Your task to perform on an android device: delete location history Image 0: 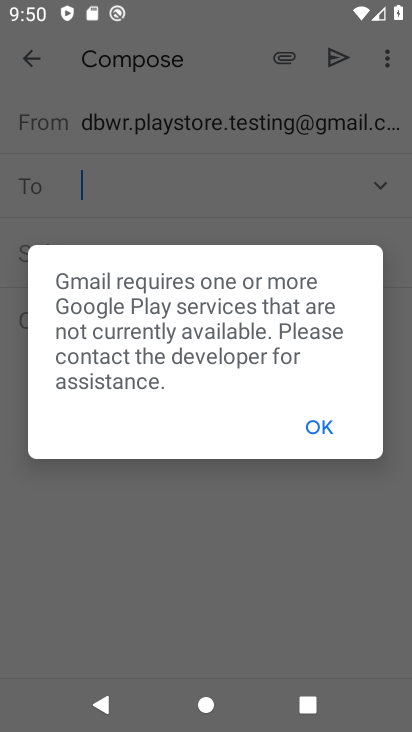
Step 0: click (313, 422)
Your task to perform on an android device: delete location history Image 1: 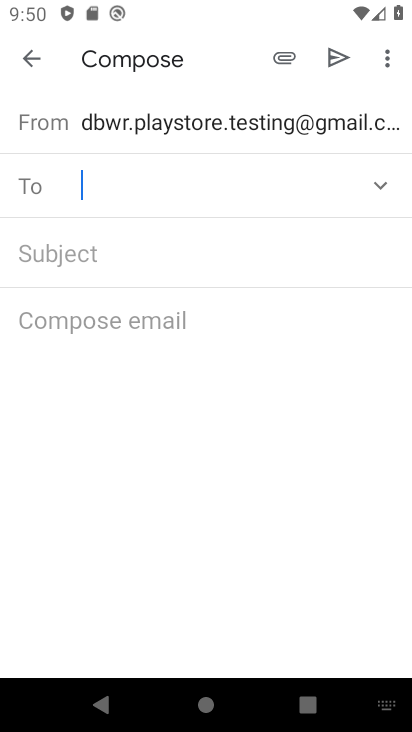
Step 1: press home button
Your task to perform on an android device: delete location history Image 2: 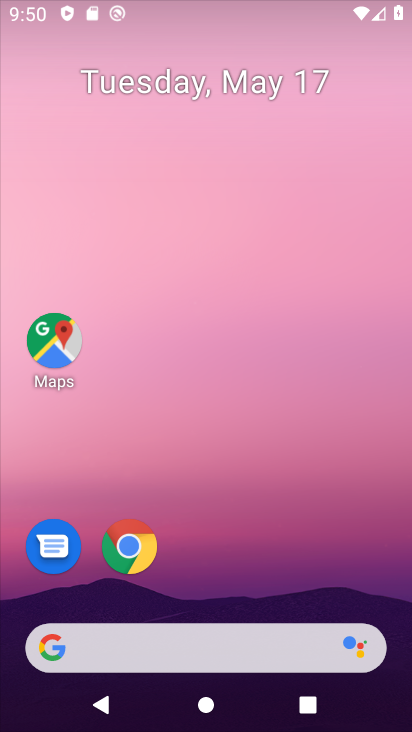
Step 2: drag from (266, 607) to (290, 261)
Your task to perform on an android device: delete location history Image 3: 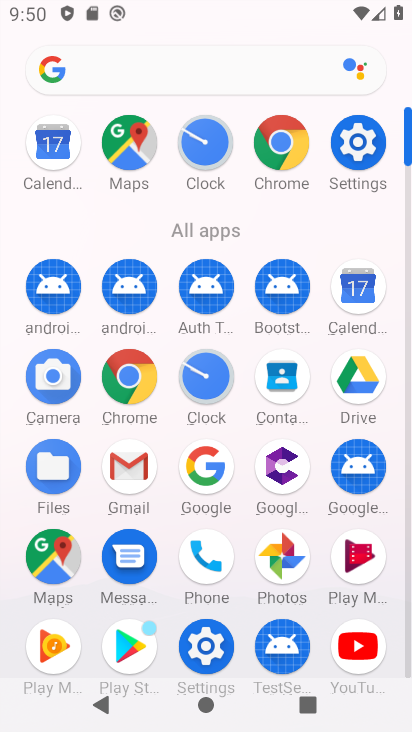
Step 3: click (349, 128)
Your task to perform on an android device: delete location history Image 4: 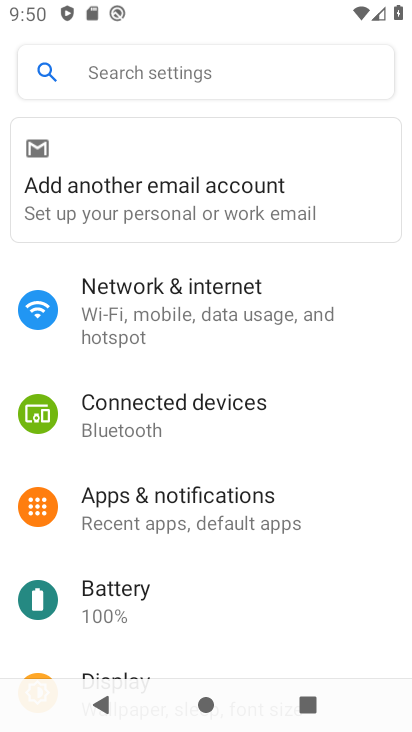
Step 4: drag from (165, 580) to (201, 249)
Your task to perform on an android device: delete location history Image 5: 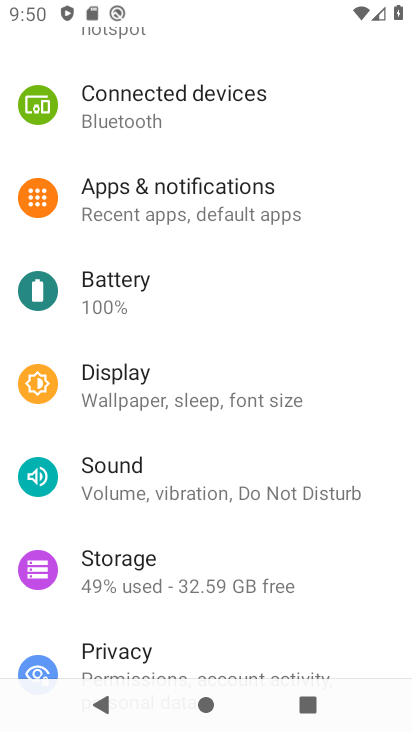
Step 5: drag from (182, 580) to (243, 182)
Your task to perform on an android device: delete location history Image 6: 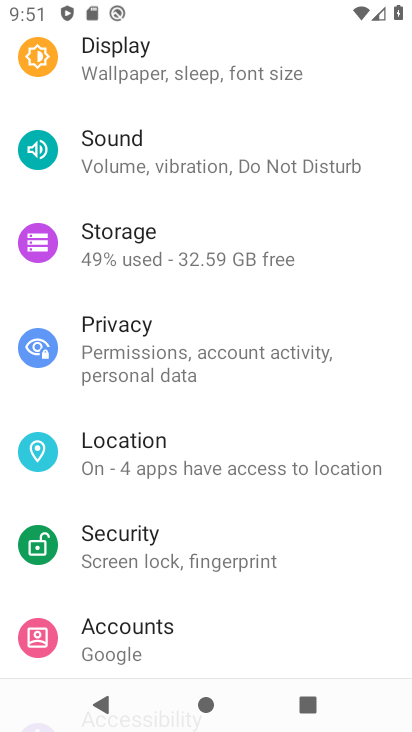
Step 6: click (217, 462)
Your task to perform on an android device: delete location history Image 7: 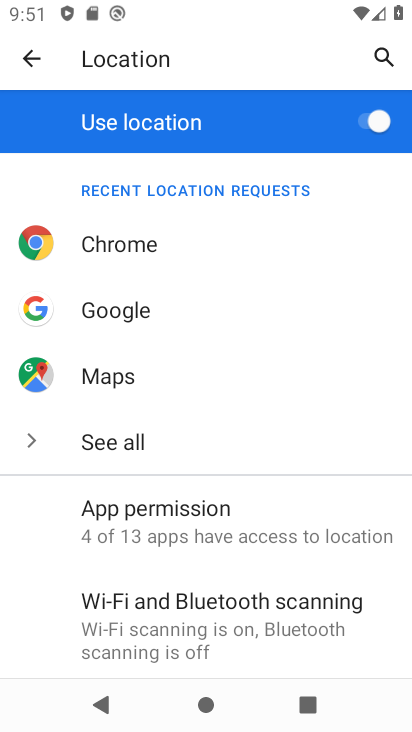
Step 7: drag from (238, 588) to (241, 222)
Your task to perform on an android device: delete location history Image 8: 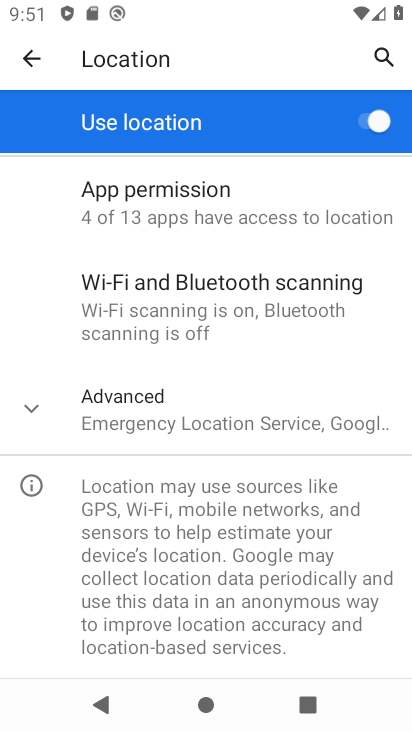
Step 8: click (212, 423)
Your task to perform on an android device: delete location history Image 9: 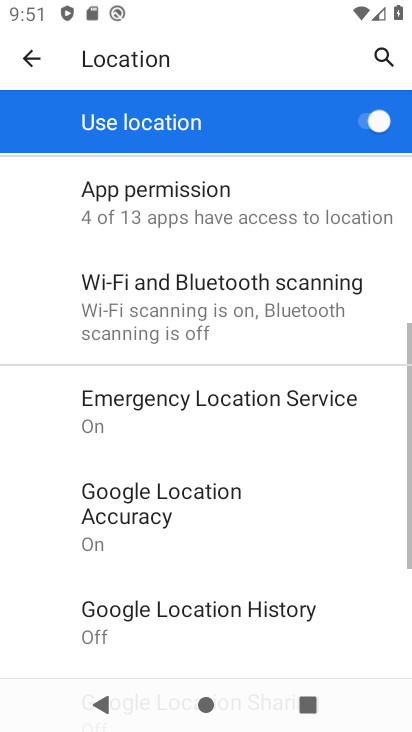
Step 9: drag from (173, 644) to (205, 202)
Your task to perform on an android device: delete location history Image 10: 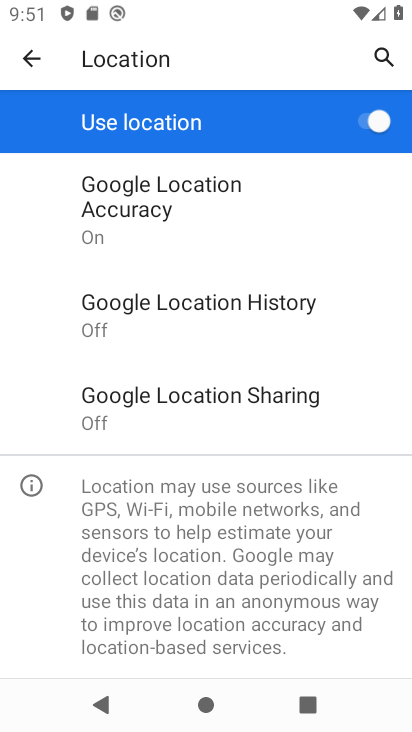
Step 10: click (33, 53)
Your task to perform on an android device: delete location history Image 11: 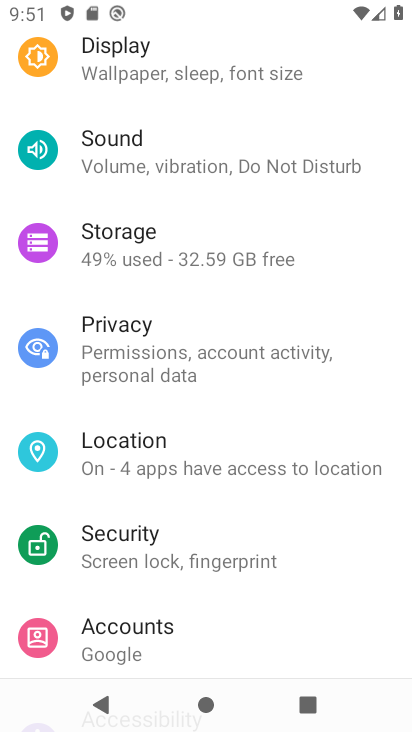
Step 11: press home button
Your task to perform on an android device: delete location history Image 12: 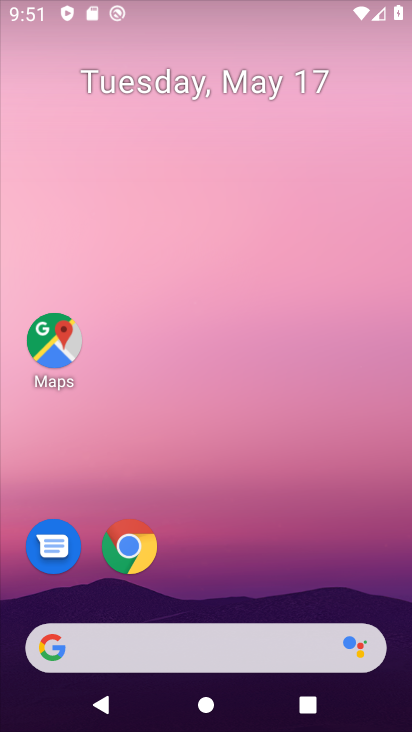
Step 12: drag from (249, 590) to (259, 163)
Your task to perform on an android device: delete location history Image 13: 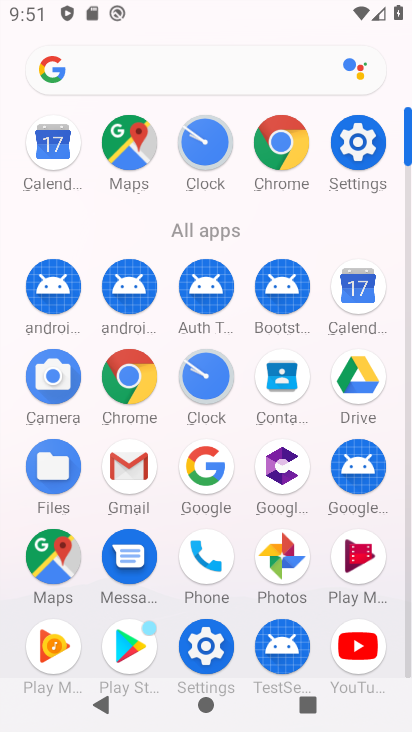
Step 13: click (46, 560)
Your task to perform on an android device: delete location history Image 14: 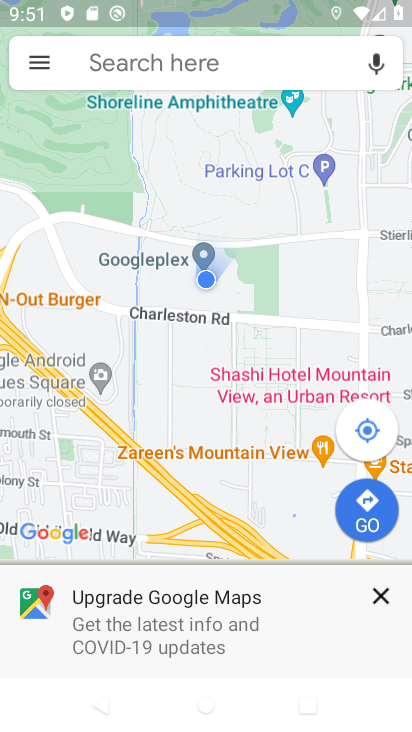
Step 14: click (34, 52)
Your task to perform on an android device: delete location history Image 15: 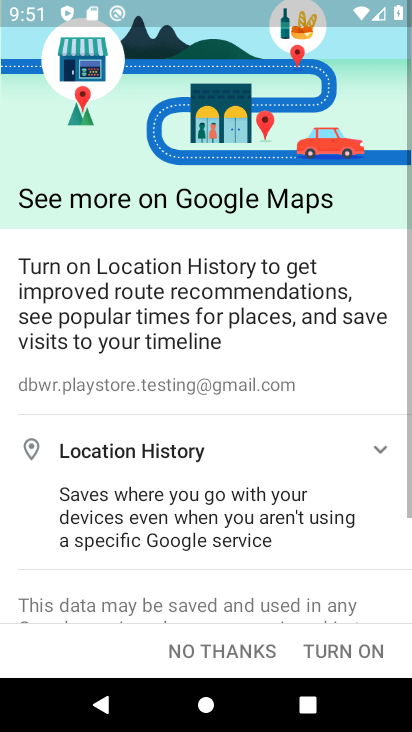
Step 15: press back button
Your task to perform on an android device: delete location history Image 16: 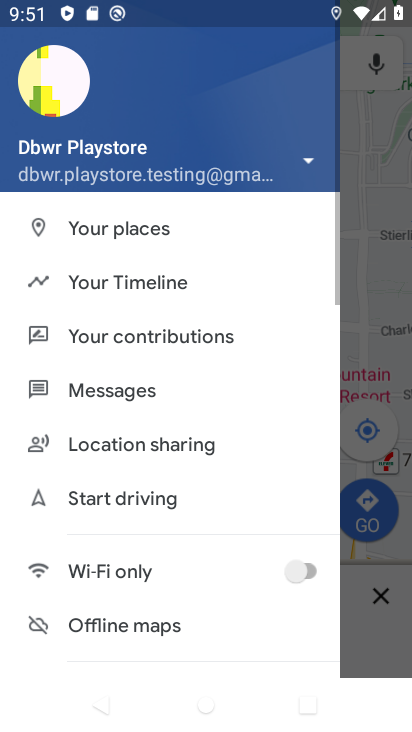
Step 16: click (147, 279)
Your task to perform on an android device: delete location history Image 17: 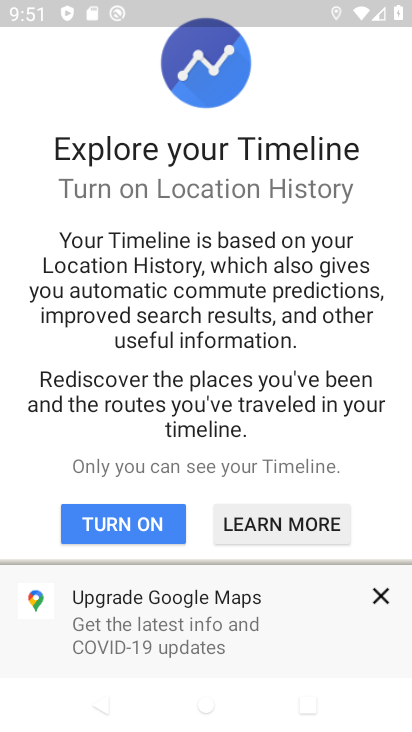
Step 17: click (376, 598)
Your task to perform on an android device: delete location history Image 18: 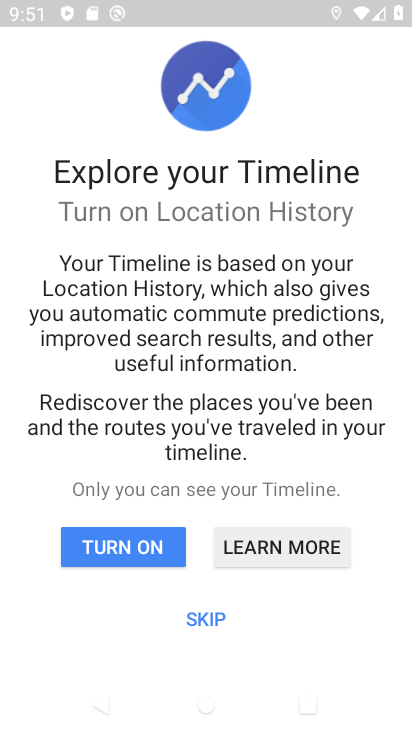
Step 18: click (215, 614)
Your task to perform on an android device: delete location history Image 19: 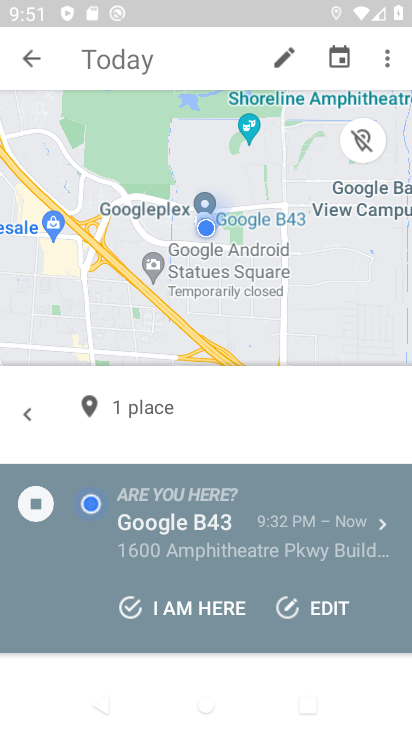
Step 19: click (388, 54)
Your task to perform on an android device: delete location history Image 20: 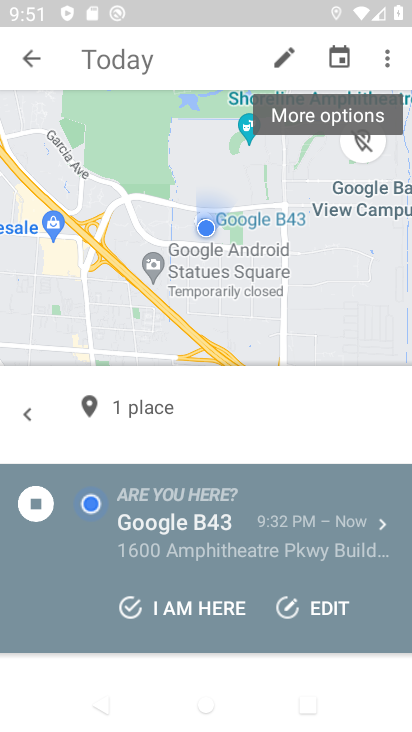
Step 20: click (401, 46)
Your task to perform on an android device: delete location history Image 21: 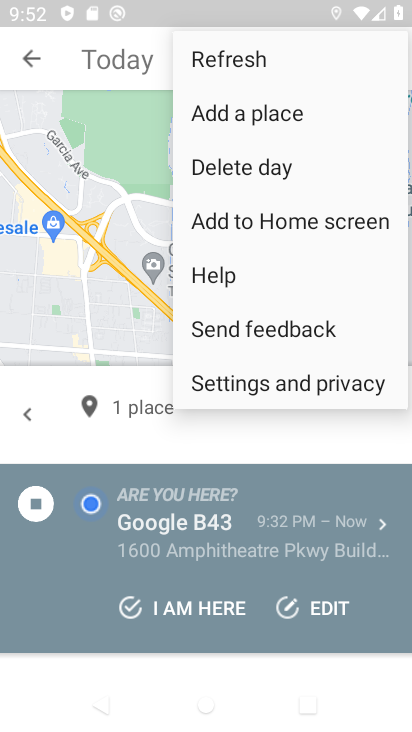
Step 21: click (269, 377)
Your task to perform on an android device: delete location history Image 22: 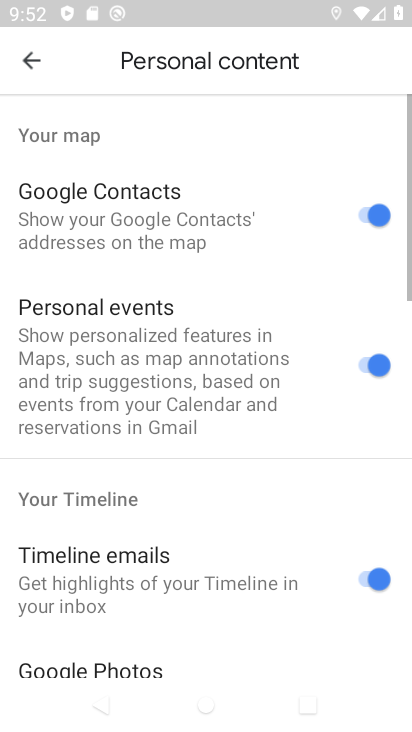
Step 22: drag from (164, 638) to (213, 158)
Your task to perform on an android device: delete location history Image 23: 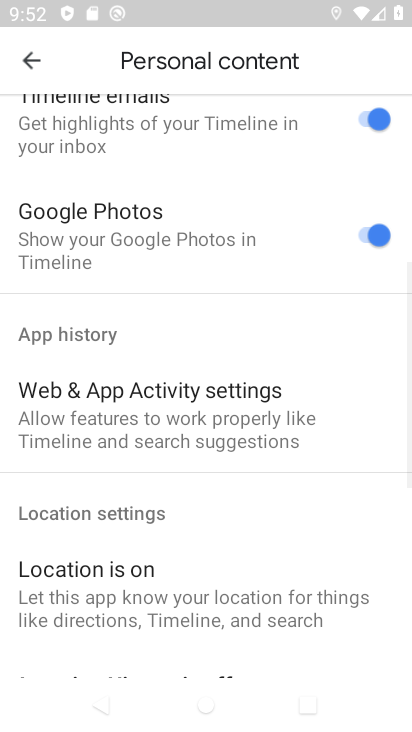
Step 23: drag from (170, 552) to (206, 152)
Your task to perform on an android device: delete location history Image 24: 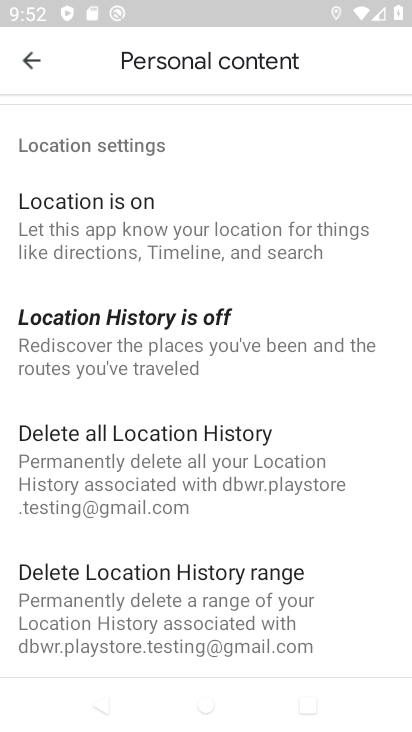
Step 24: click (188, 461)
Your task to perform on an android device: delete location history Image 25: 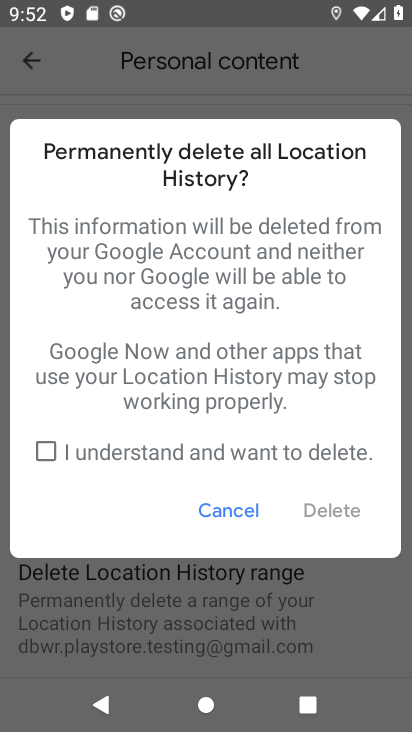
Step 25: click (43, 450)
Your task to perform on an android device: delete location history Image 26: 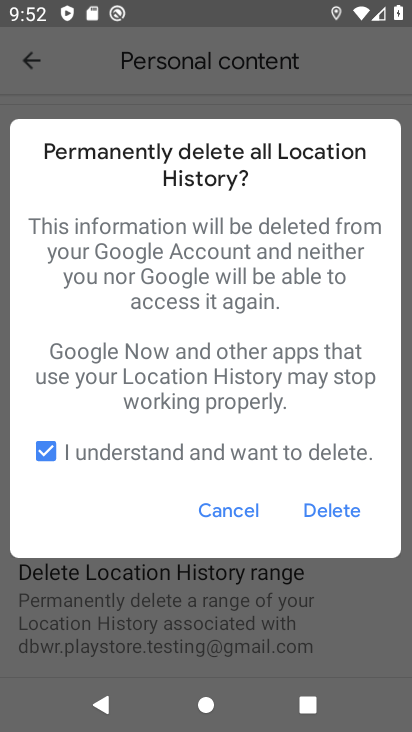
Step 26: click (337, 513)
Your task to perform on an android device: delete location history Image 27: 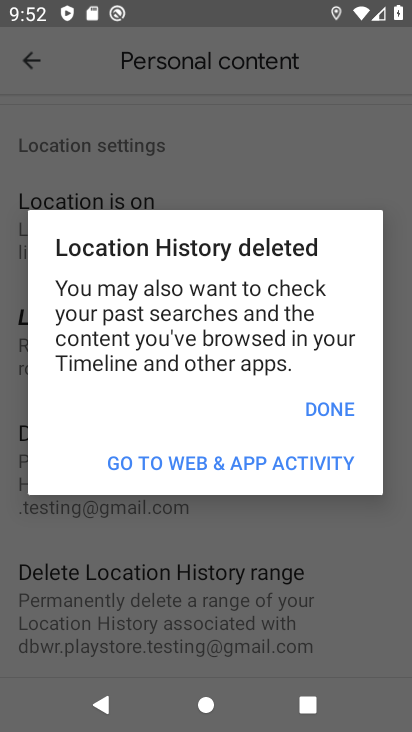
Step 27: click (328, 408)
Your task to perform on an android device: delete location history Image 28: 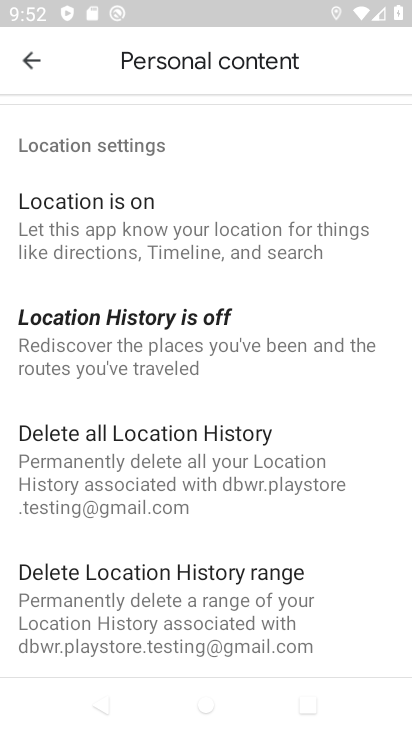
Step 28: task complete